Your task to perform on an android device: What is the capital of Sweden? Image 0: 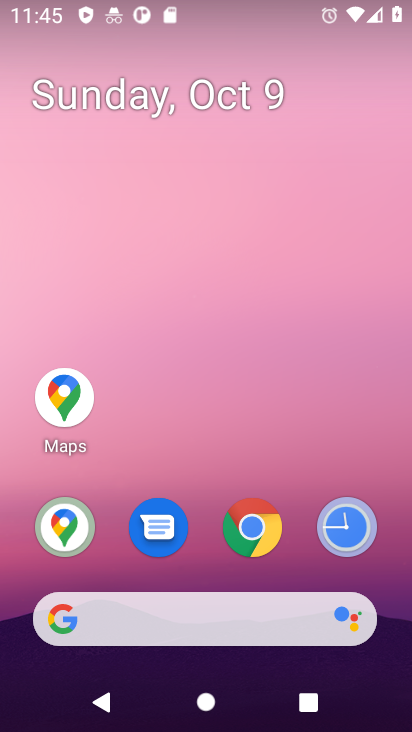
Step 0: click (253, 529)
Your task to perform on an android device: What is the capital of Sweden? Image 1: 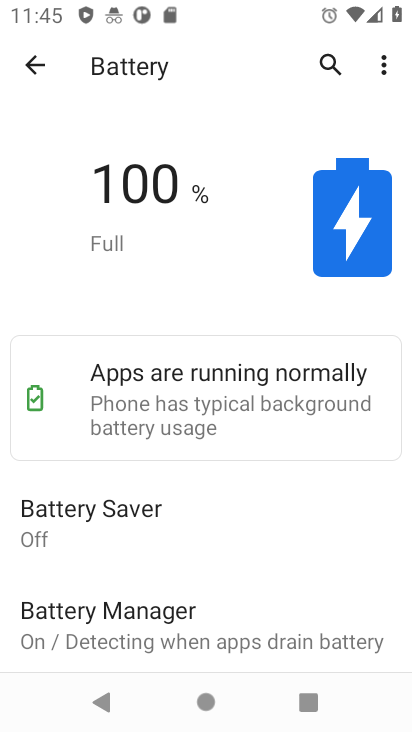
Step 1: press home button
Your task to perform on an android device: What is the capital of Sweden? Image 2: 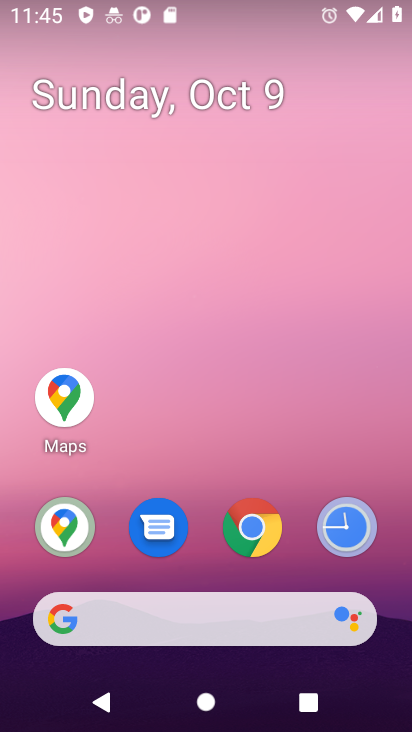
Step 2: click (233, 523)
Your task to perform on an android device: What is the capital of Sweden? Image 3: 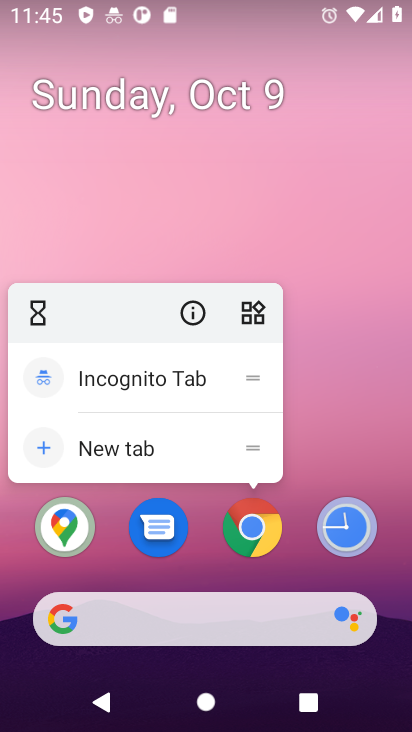
Step 3: click (269, 531)
Your task to perform on an android device: What is the capital of Sweden? Image 4: 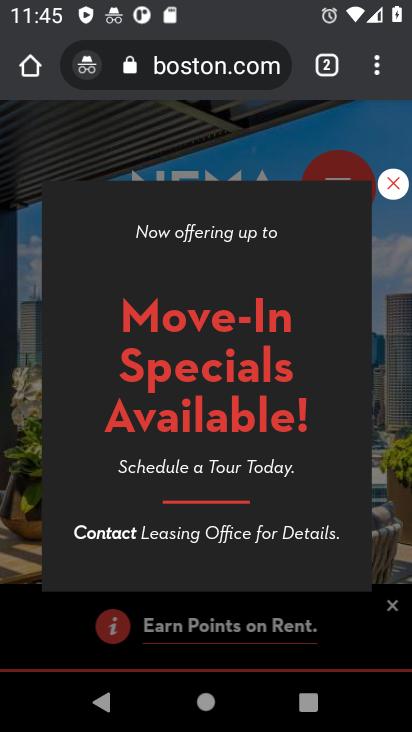
Step 4: click (222, 59)
Your task to perform on an android device: What is the capital of Sweden? Image 5: 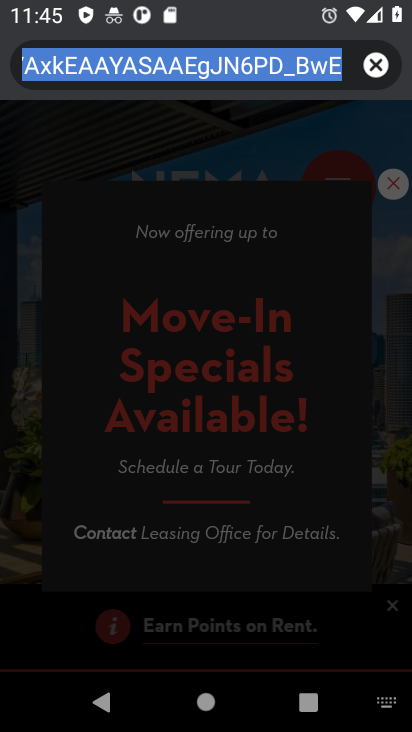
Step 5: type "capital of sweden ?"
Your task to perform on an android device: What is the capital of Sweden? Image 6: 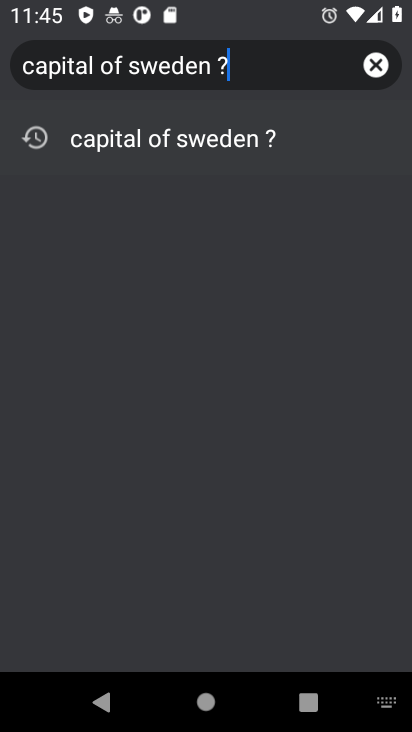
Step 6: click (230, 148)
Your task to perform on an android device: What is the capital of Sweden? Image 7: 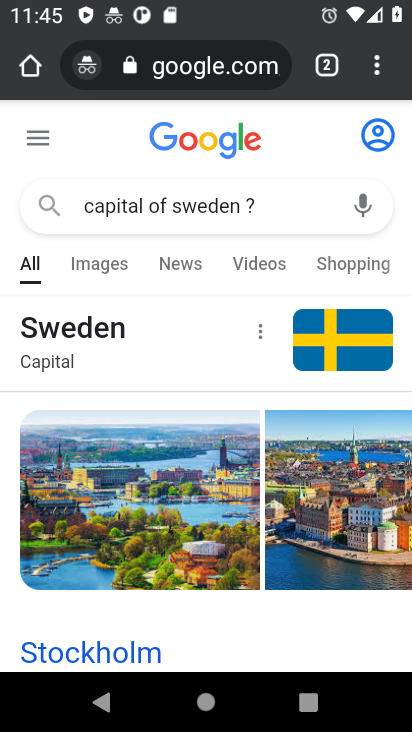
Step 7: task complete